Your task to perform on an android device: Open Chrome and go to the settings page Image 0: 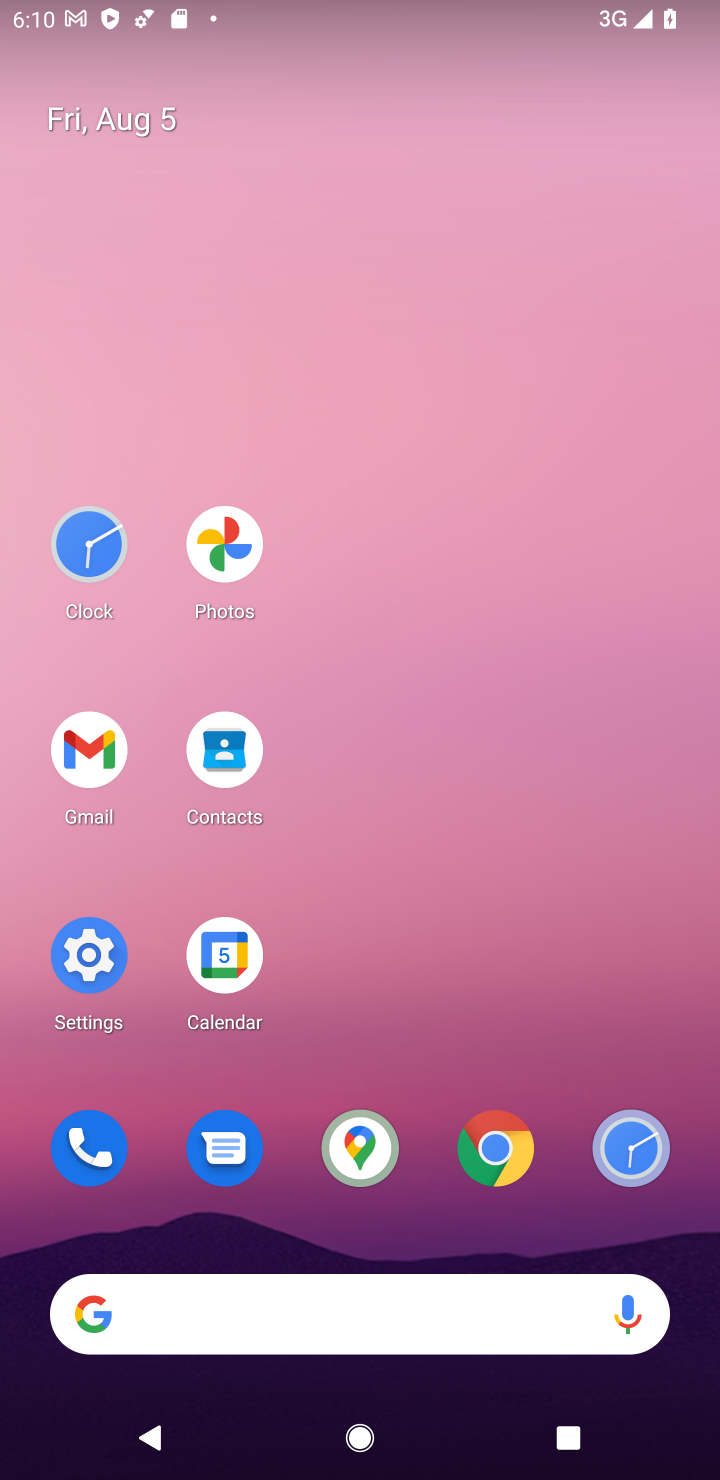
Step 0: click (497, 1149)
Your task to perform on an android device: Open Chrome and go to the settings page Image 1: 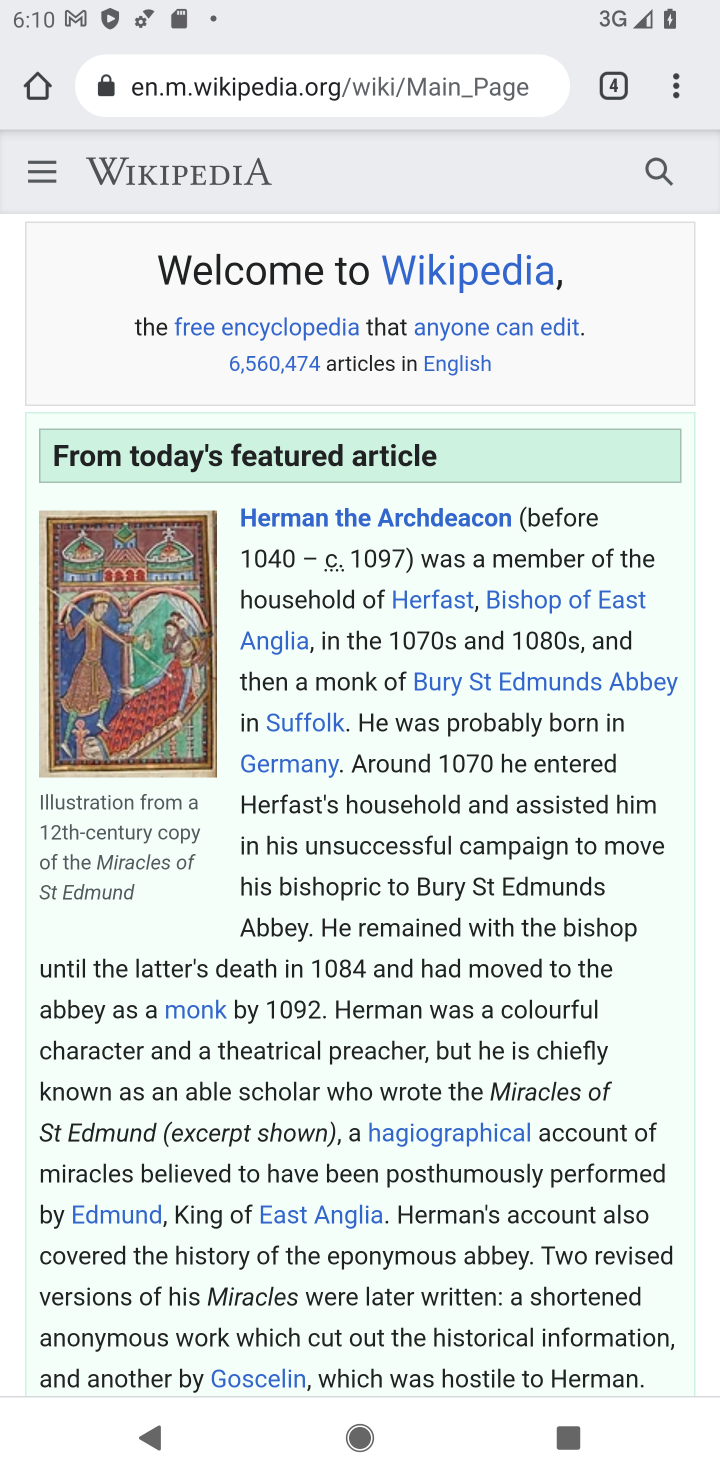
Step 1: click (681, 68)
Your task to perform on an android device: Open Chrome and go to the settings page Image 2: 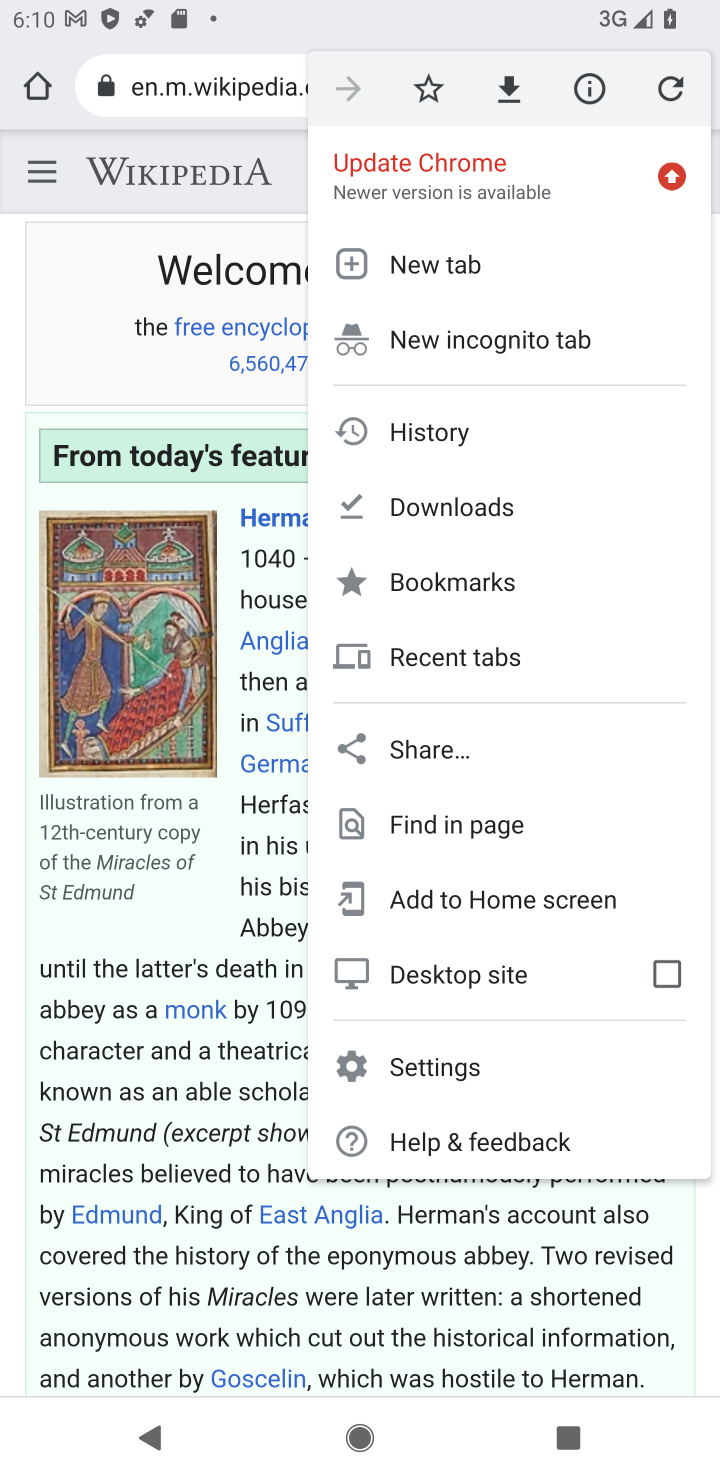
Step 2: click (434, 1068)
Your task to perform on an android device: Open Chrome and go to the settings page Image 3: 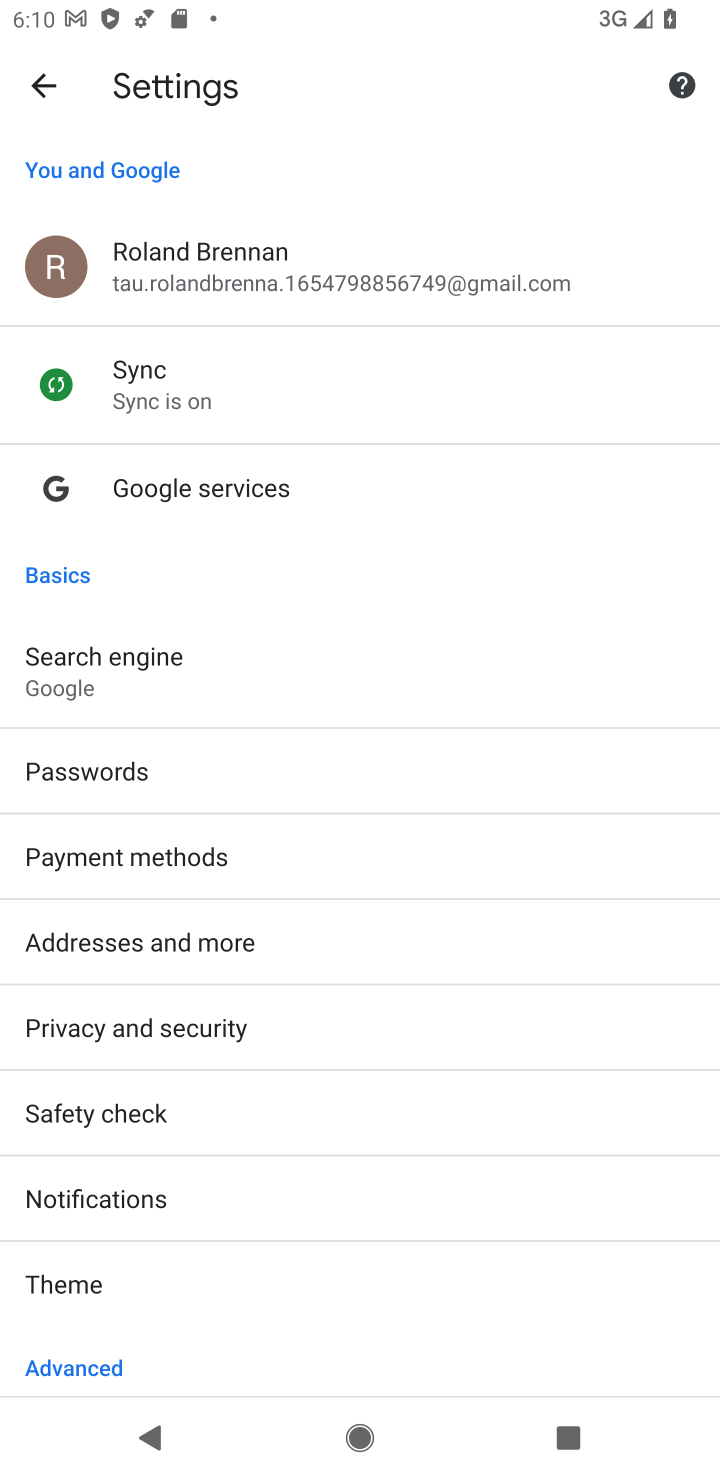
Step 3: task complete